Your task to perform on an android device: Play the latest video from the Wall Street Journal Image 0: 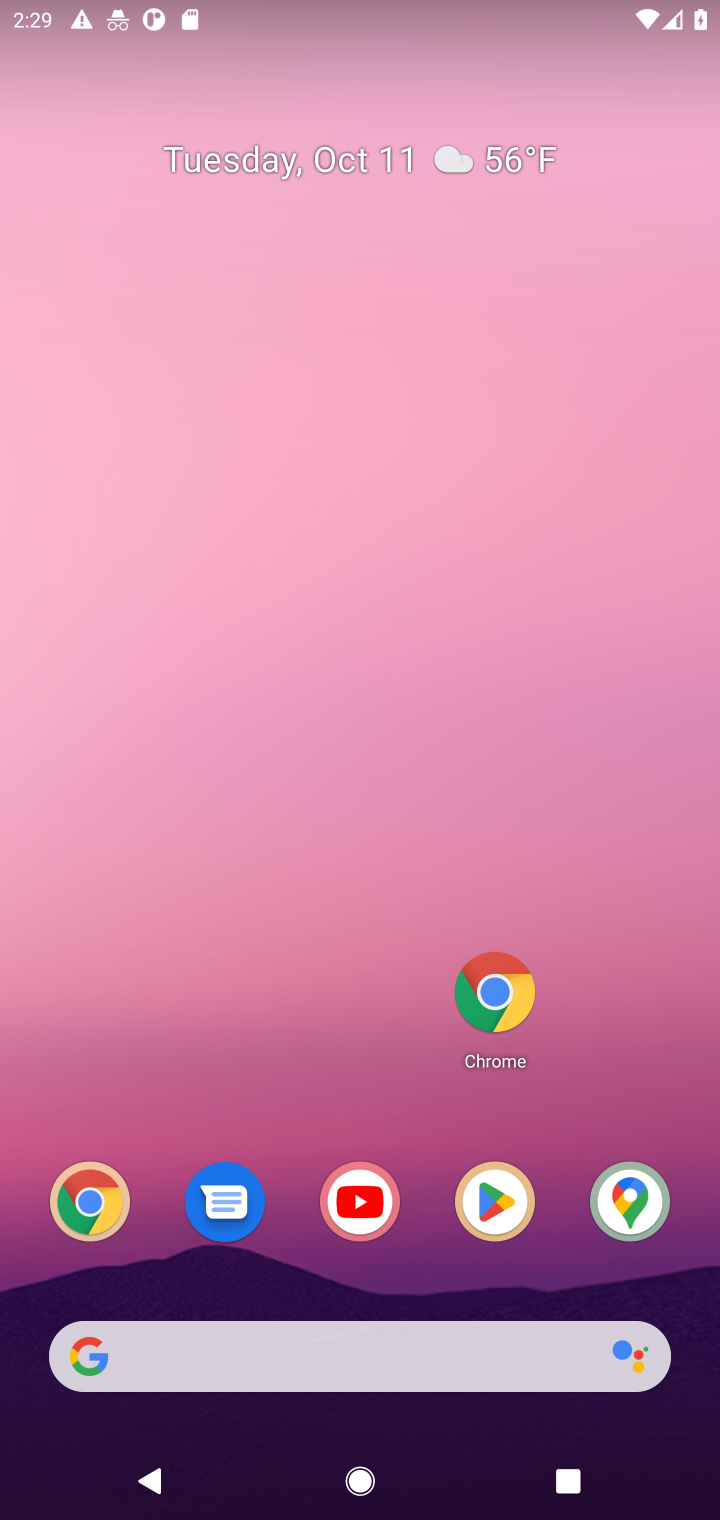
Step 0: click (494, 972)
Your task to perform on an android device: Play the latest video from the Wall Street Journal Image 1: 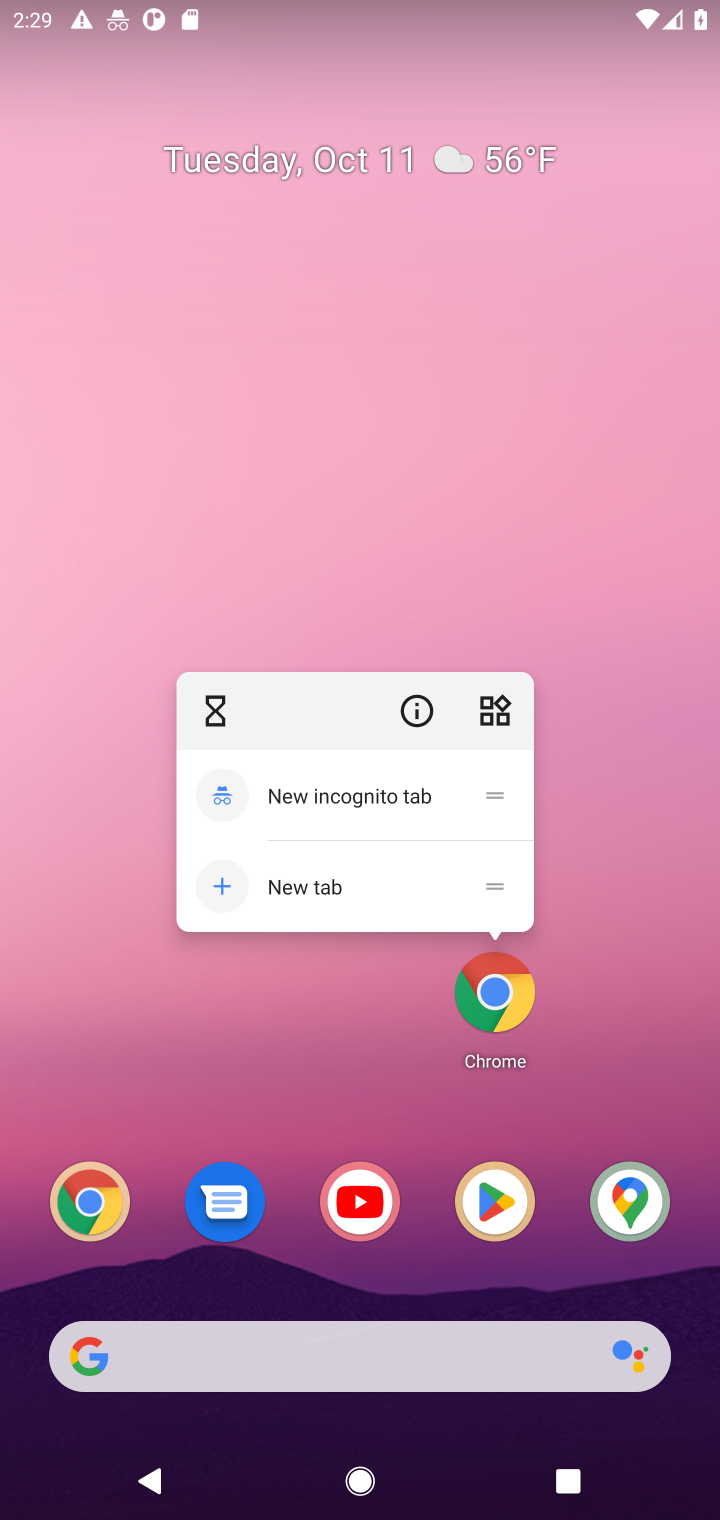
Step 1: click (494, 975)
Your task to perform on an android device: Play the latest video from the Wall Street Journal Image 2: 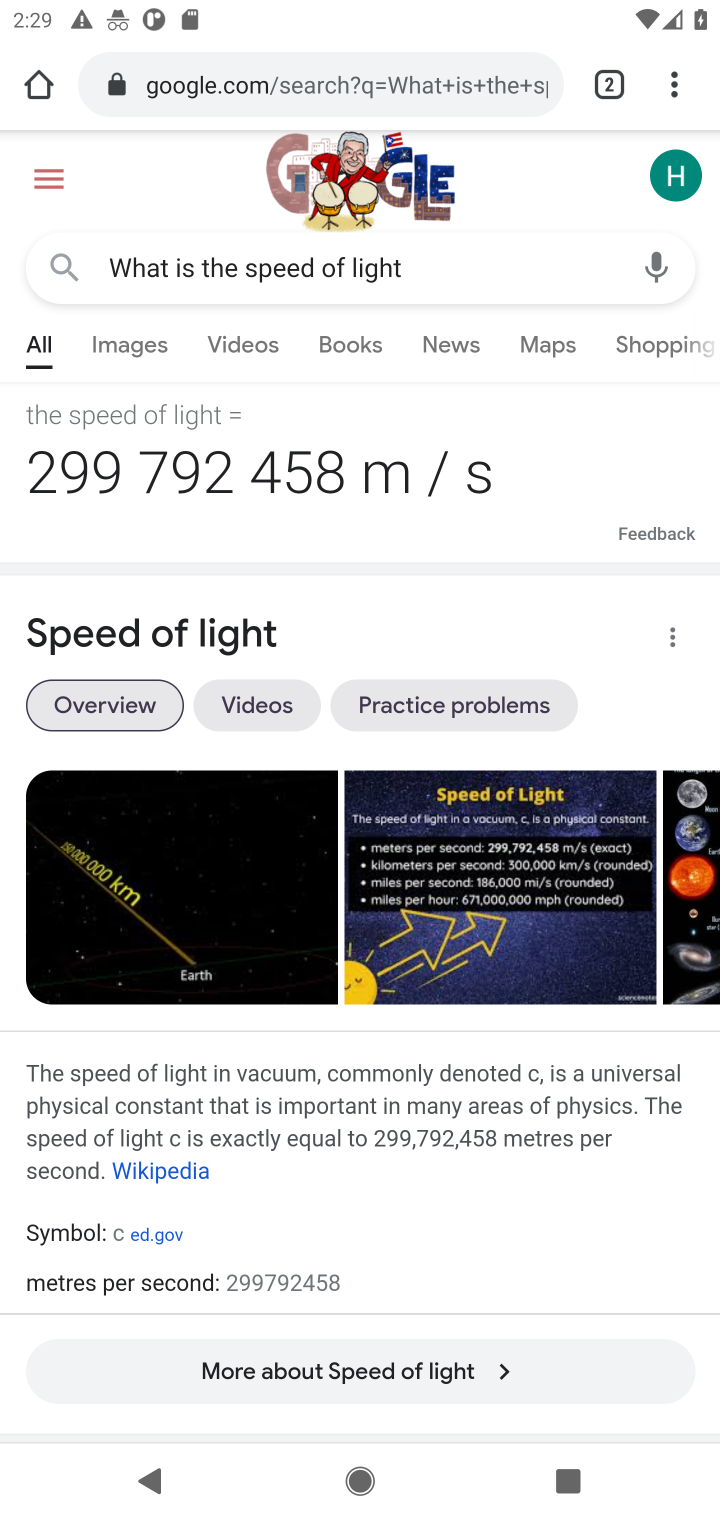
Step 2: click (492, 88)
Your task to perform on an android device: Play the latest video from the Wall Street Journal Image 3: 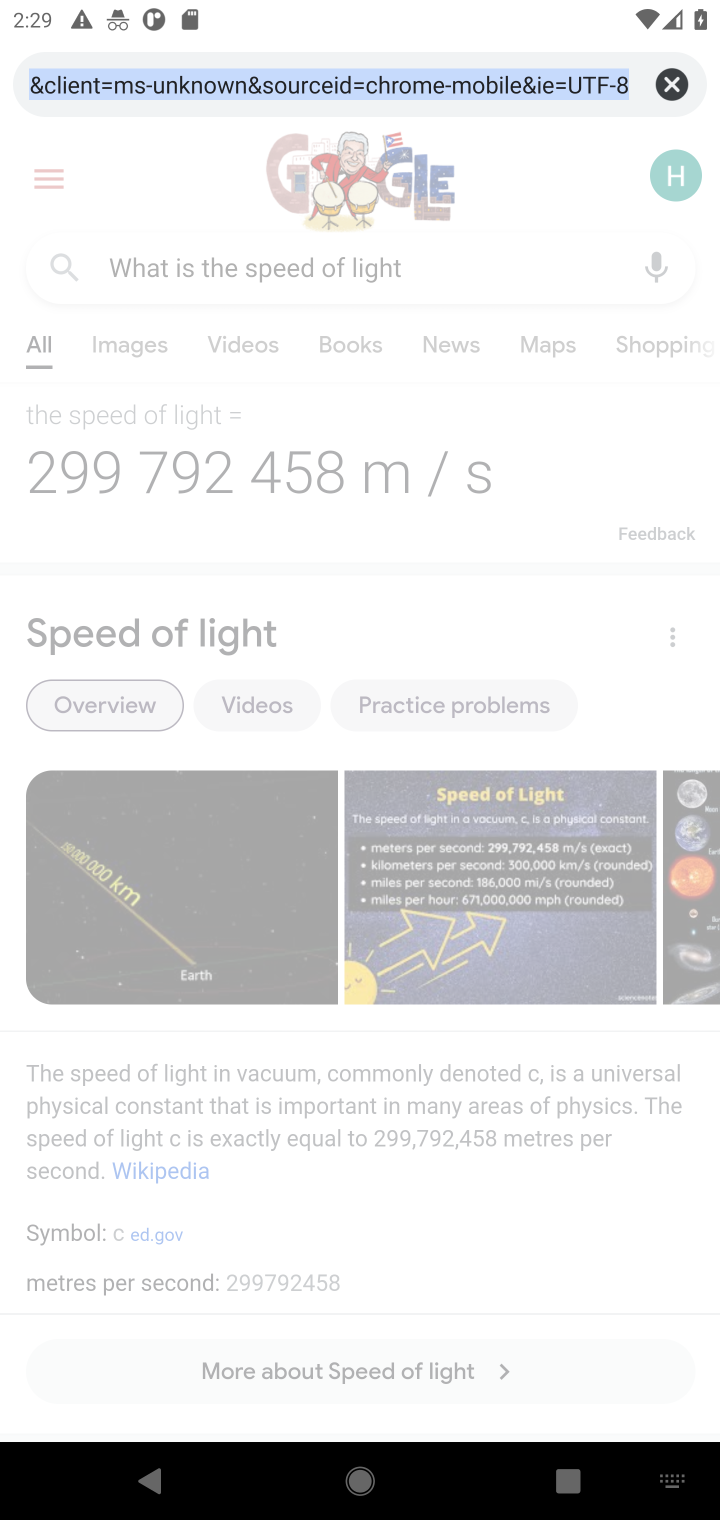
Step 3: click (674, 80)
Your task to perform on an android device: Play the latest video from the Wall Street Journal Image 4: 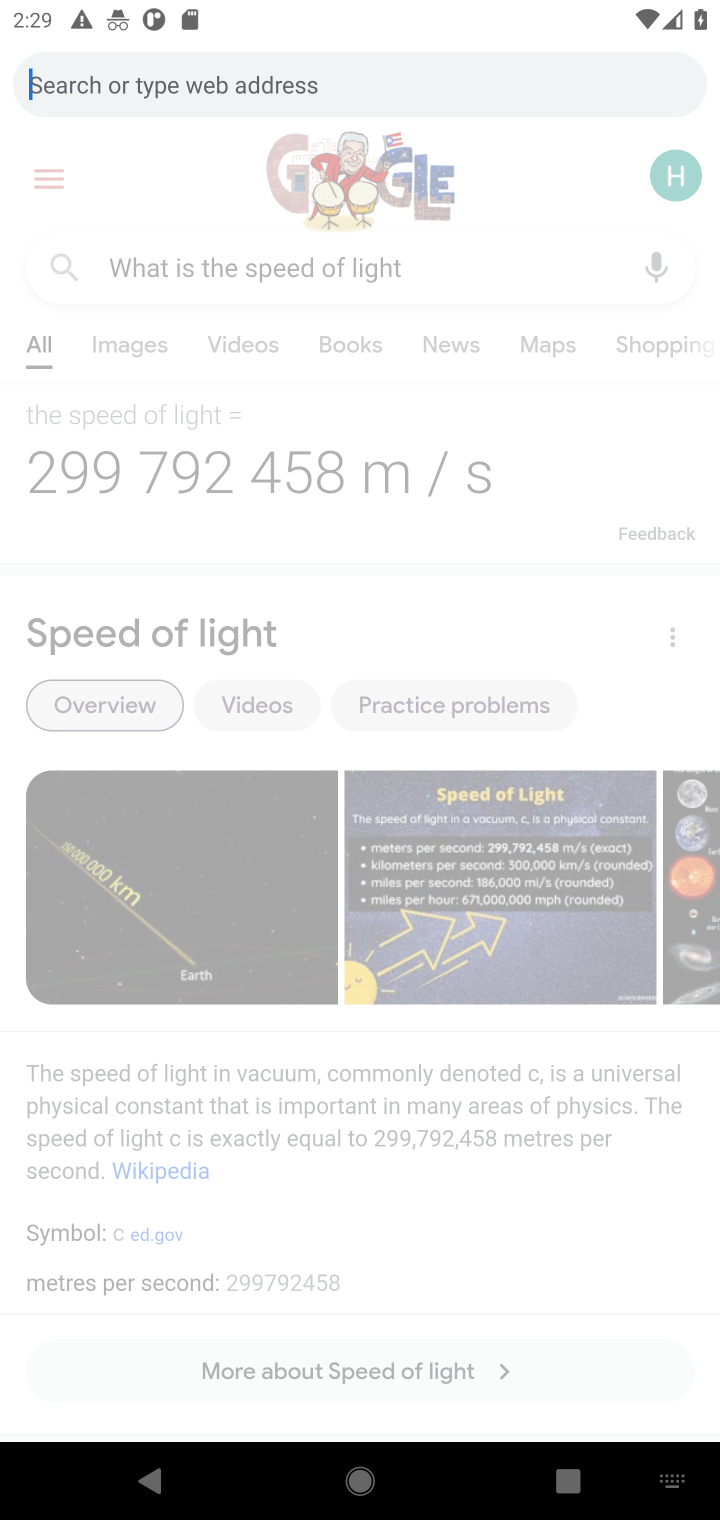
Step 4: type "Play the latest video from the Wall Street Journal"
Your task to perform on an android device: Play the latest video from the Wall Street Journal Image 5: 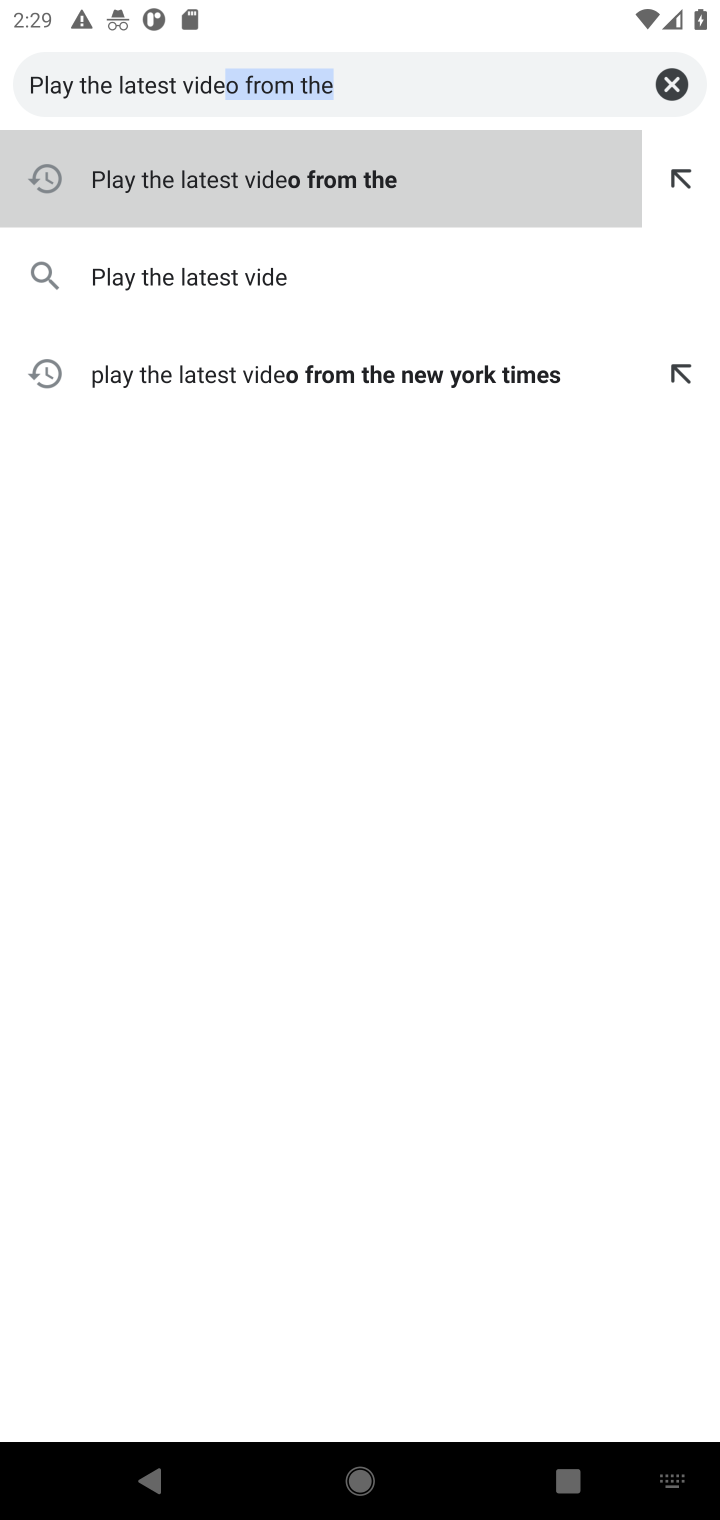
Step 5: press enter
Your task to perform on an android device: Play the latest video from the Wall Street Journal Image 6: 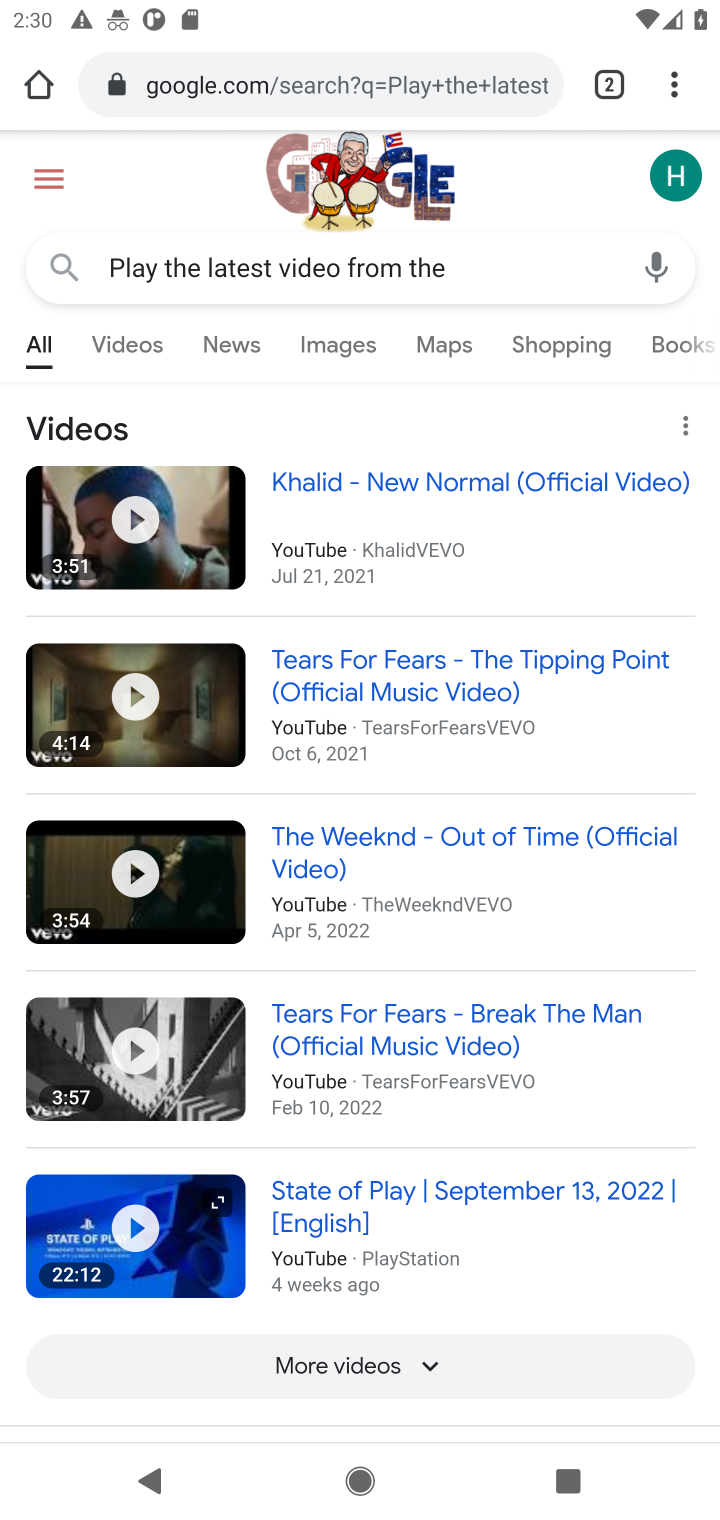
Step 6: click (131, 1235)
Your task to perform on an android device: Play the latest video from the Wall Street Journal Image 7: 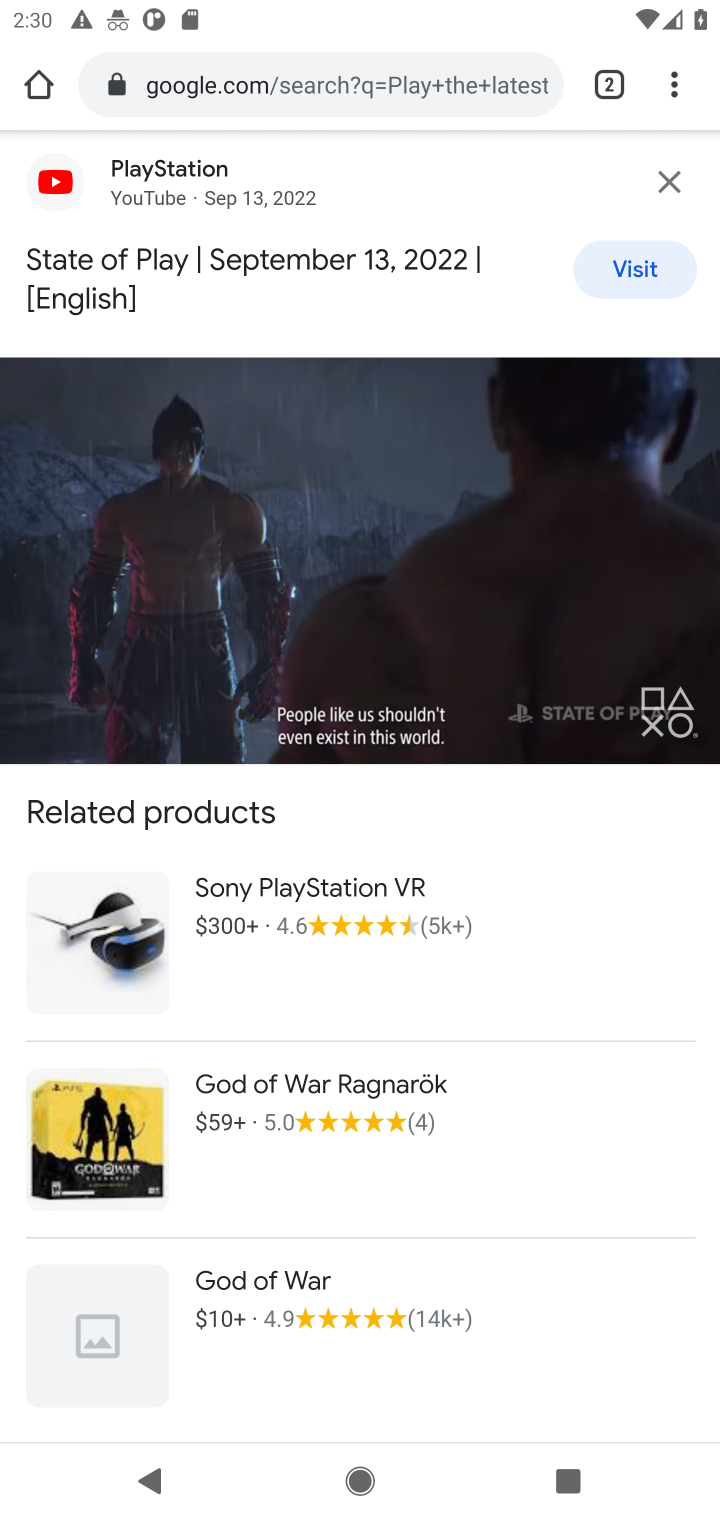
Step 7: click (360, 443)
Your task to perform on an android device: Play the latest video from the Wall Street Journal Image 8: 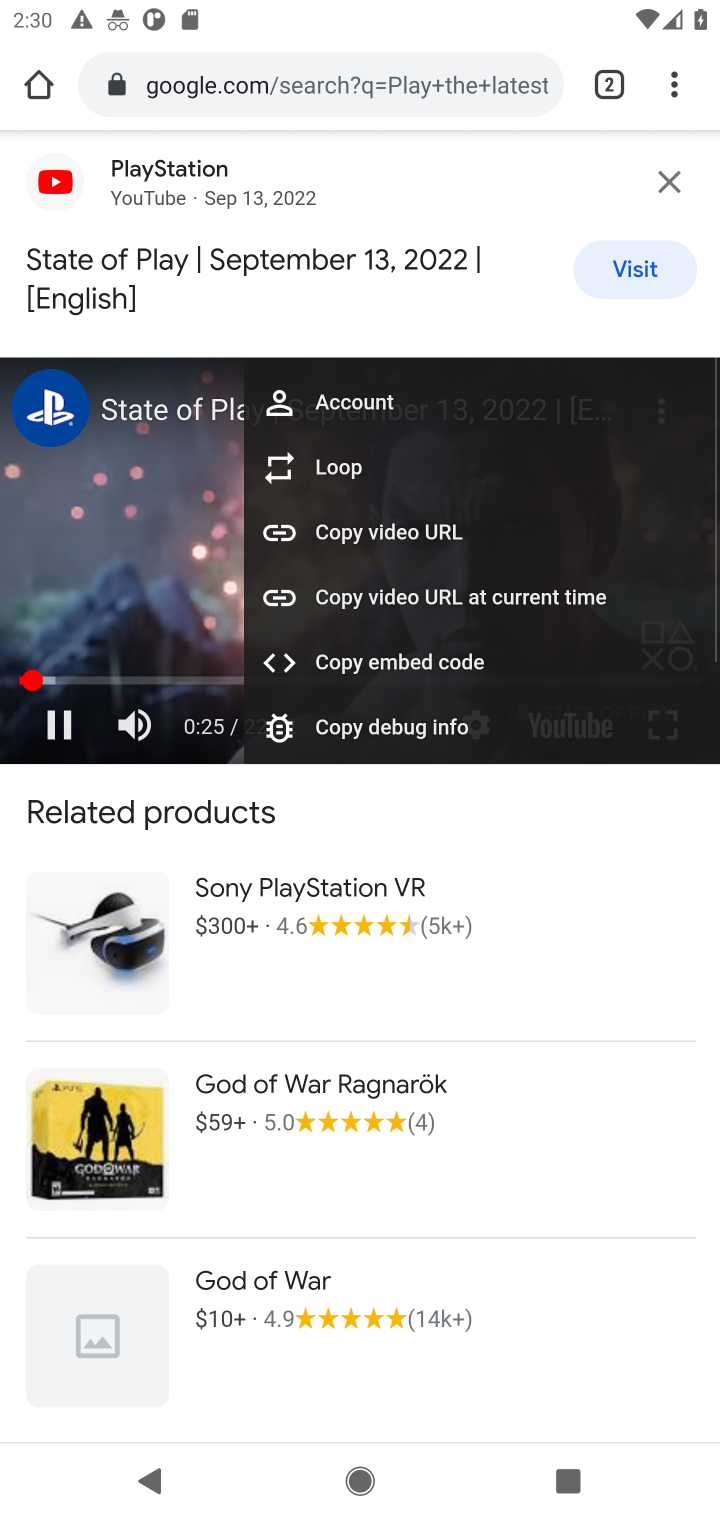
Step 8: click (348, 547)
Your task to perform on an android device: Play the latest video from the Wall Street Journal Image 9: 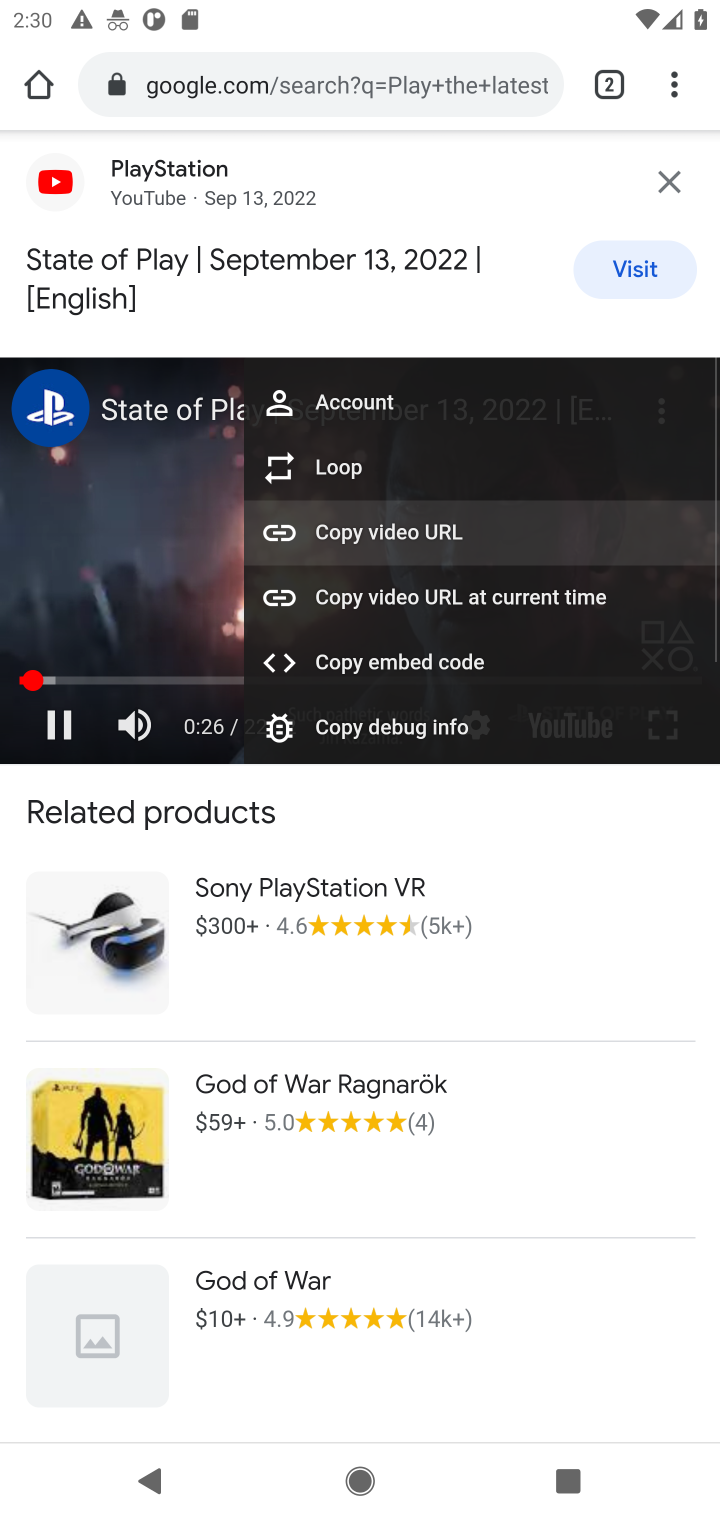
Step 9: click (126, 561)
Your task to perform on an android device: Play the latest video from the Wall Street Journal Image 10: 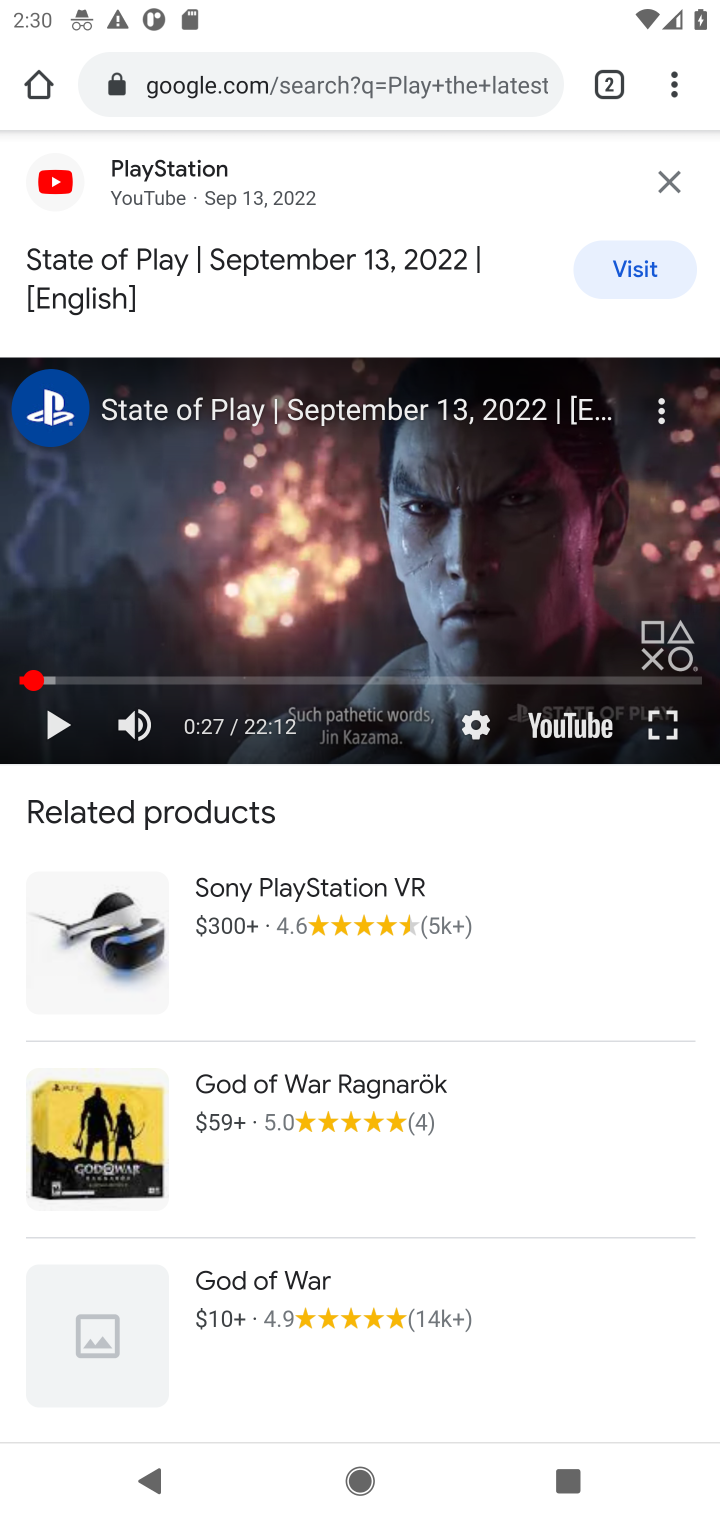
Step 10: click (356, 547)
Your task to perform on an android device: Play the latest video from the Wall Street Journal Image 11: 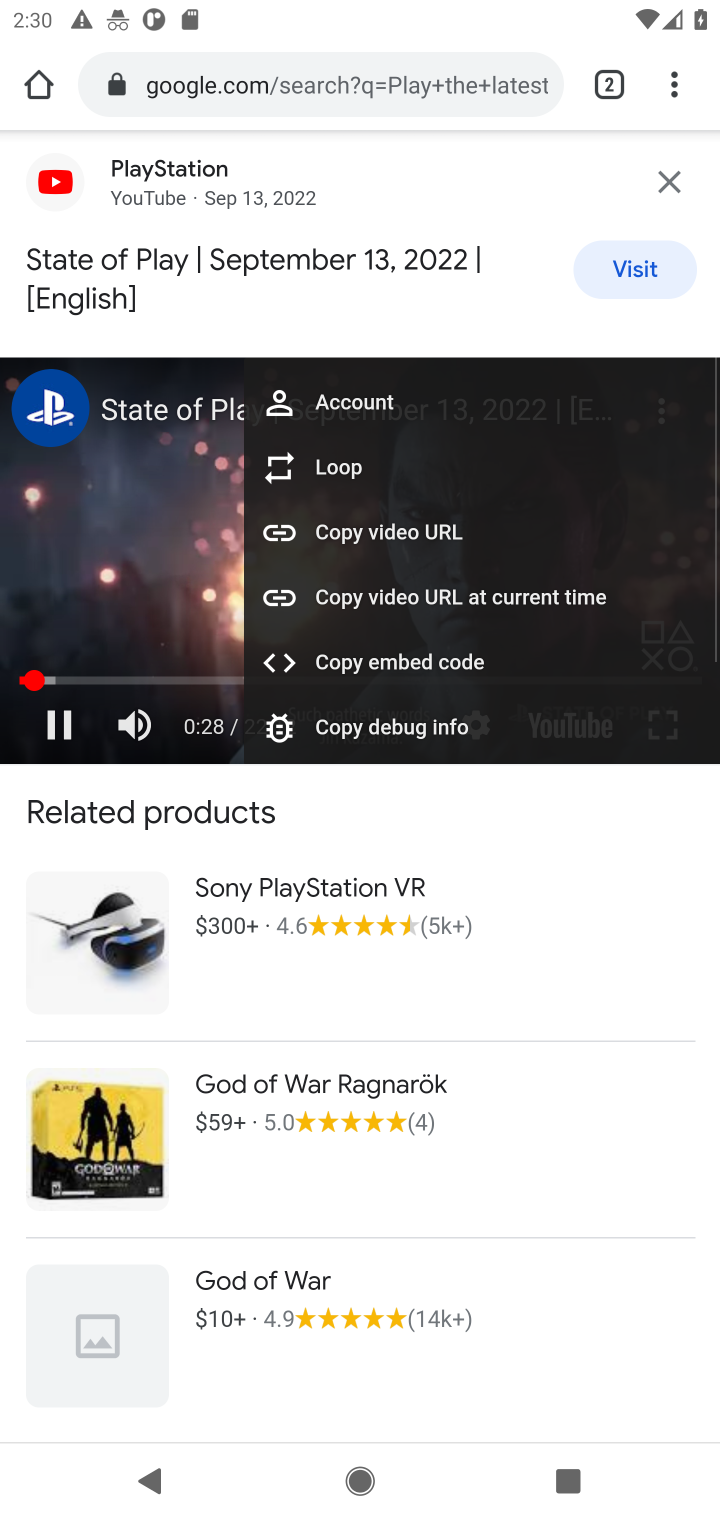
Step 11: click (152, 554)
Your task to perform on an android device: Play the latest video from the Wall Street Journal Image 12: 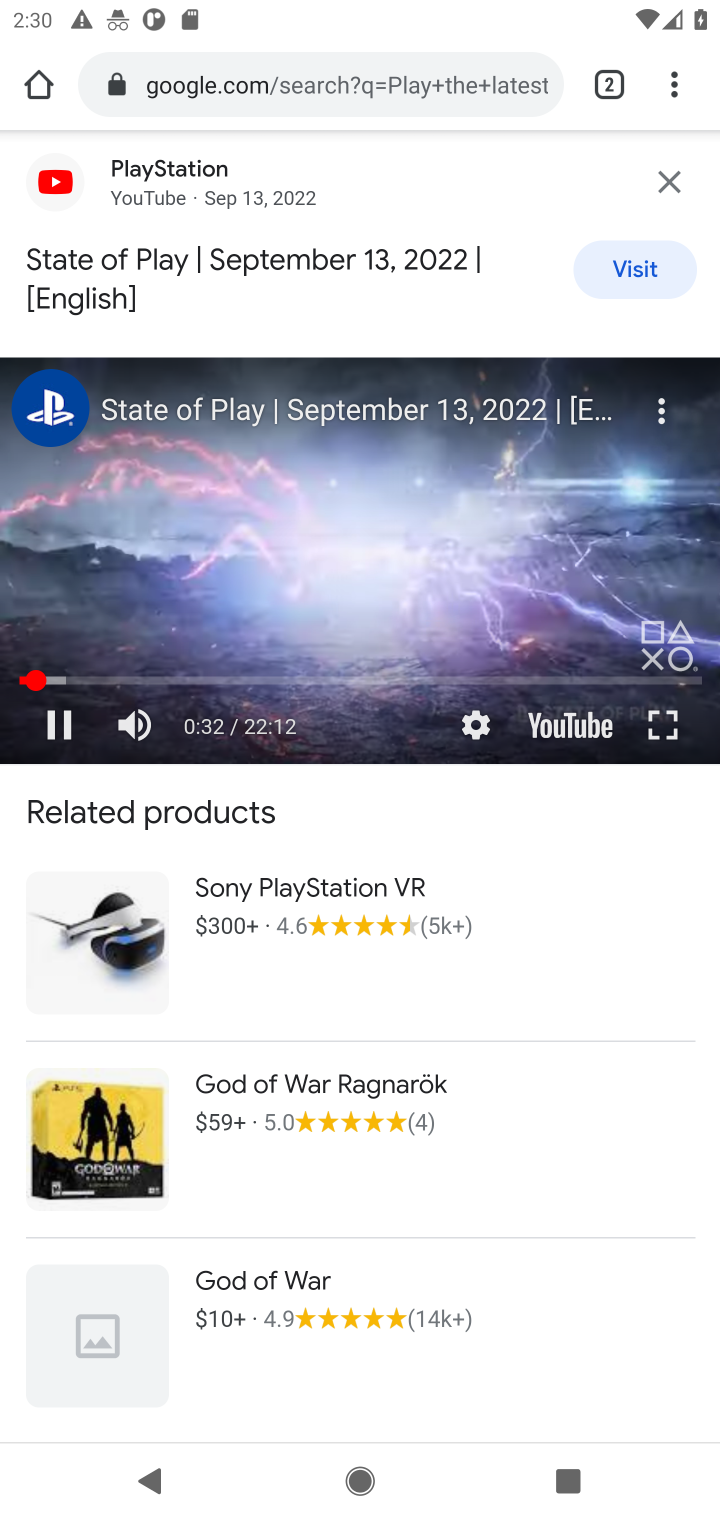
Step 12: click (336, 560)
Your task to perform on an android device: Play the latest video from the Wall Street Journal Image 13: 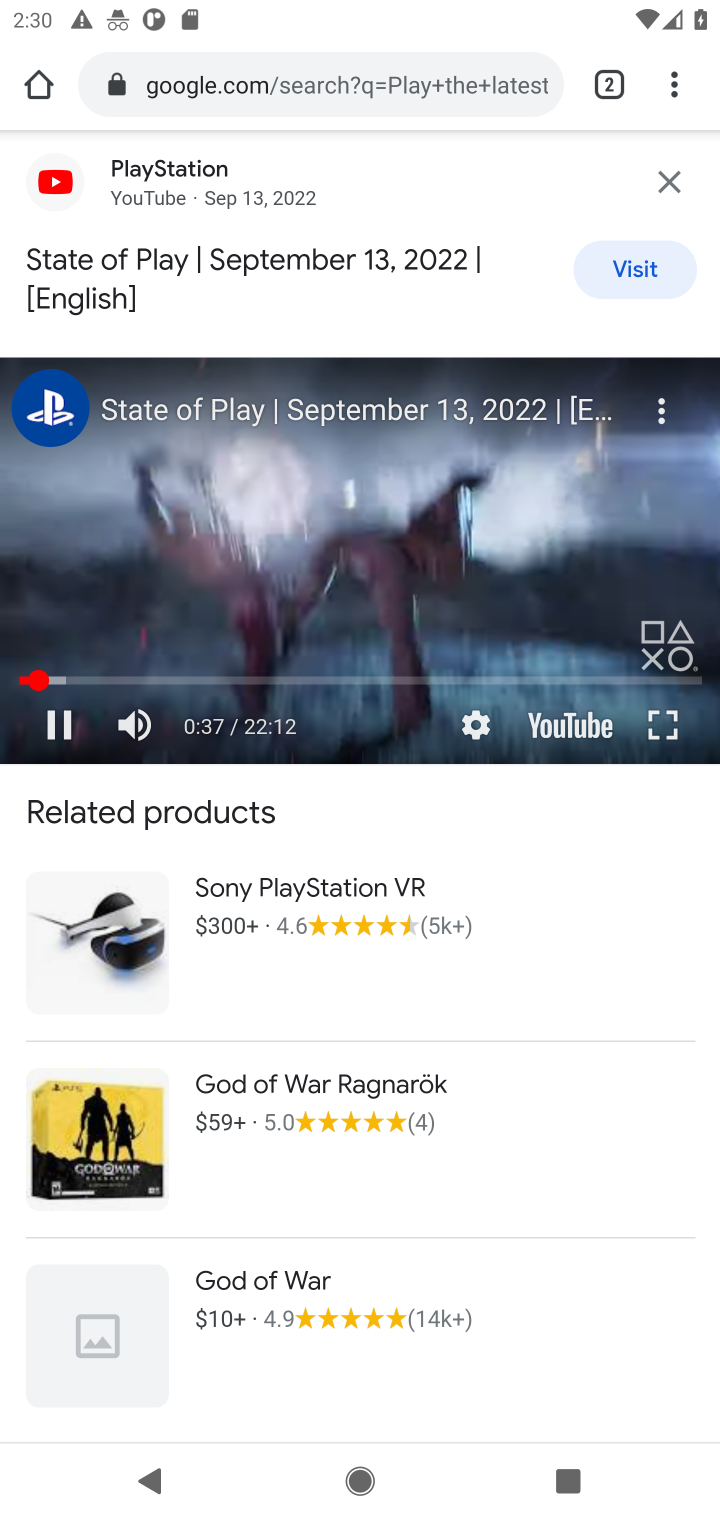
Step 13: click (59, 726)
Your task to perform on an android device: Play the latest video from the Wall Street Journal Image 14: 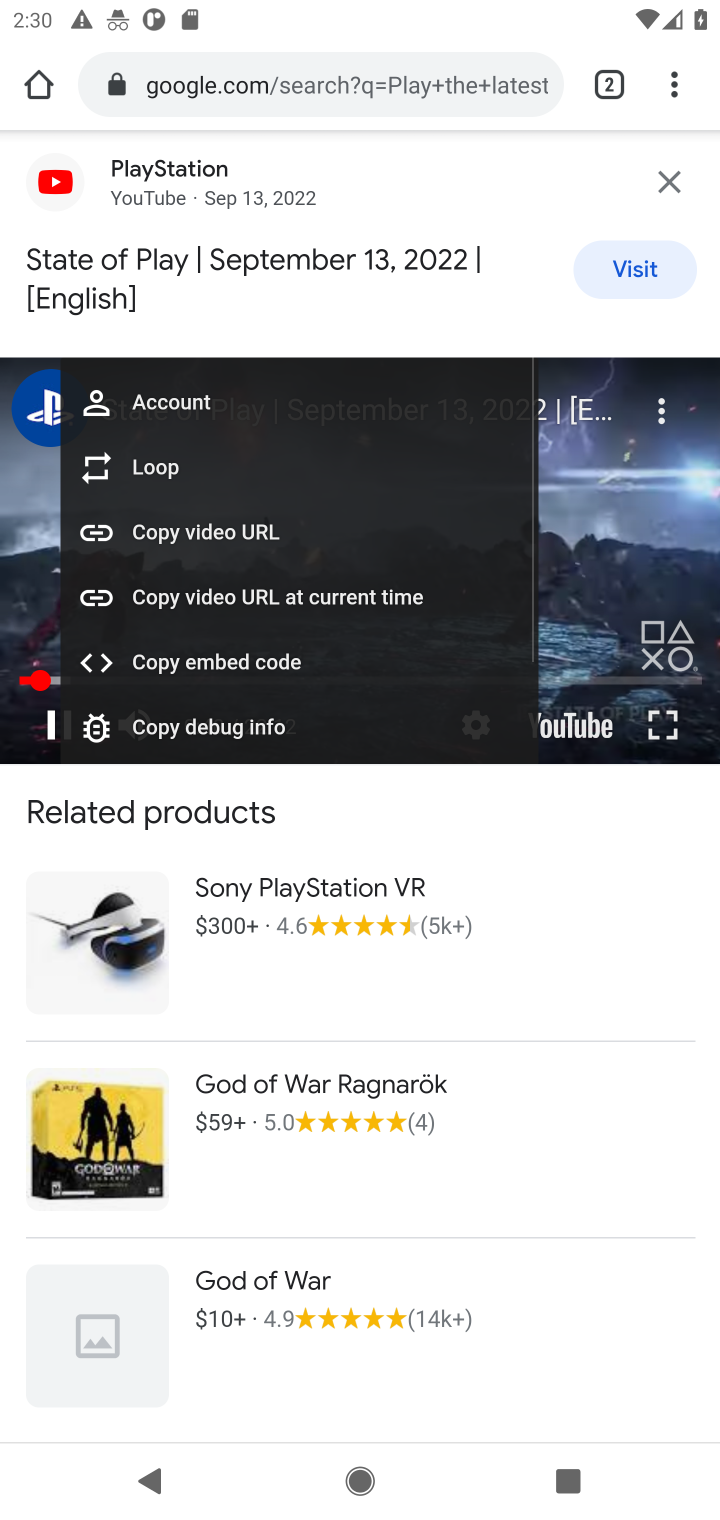
Step 14: click (572, 576)
Your task to perform on an android device: Play the latest video from the Wall Street Journal Image 15: 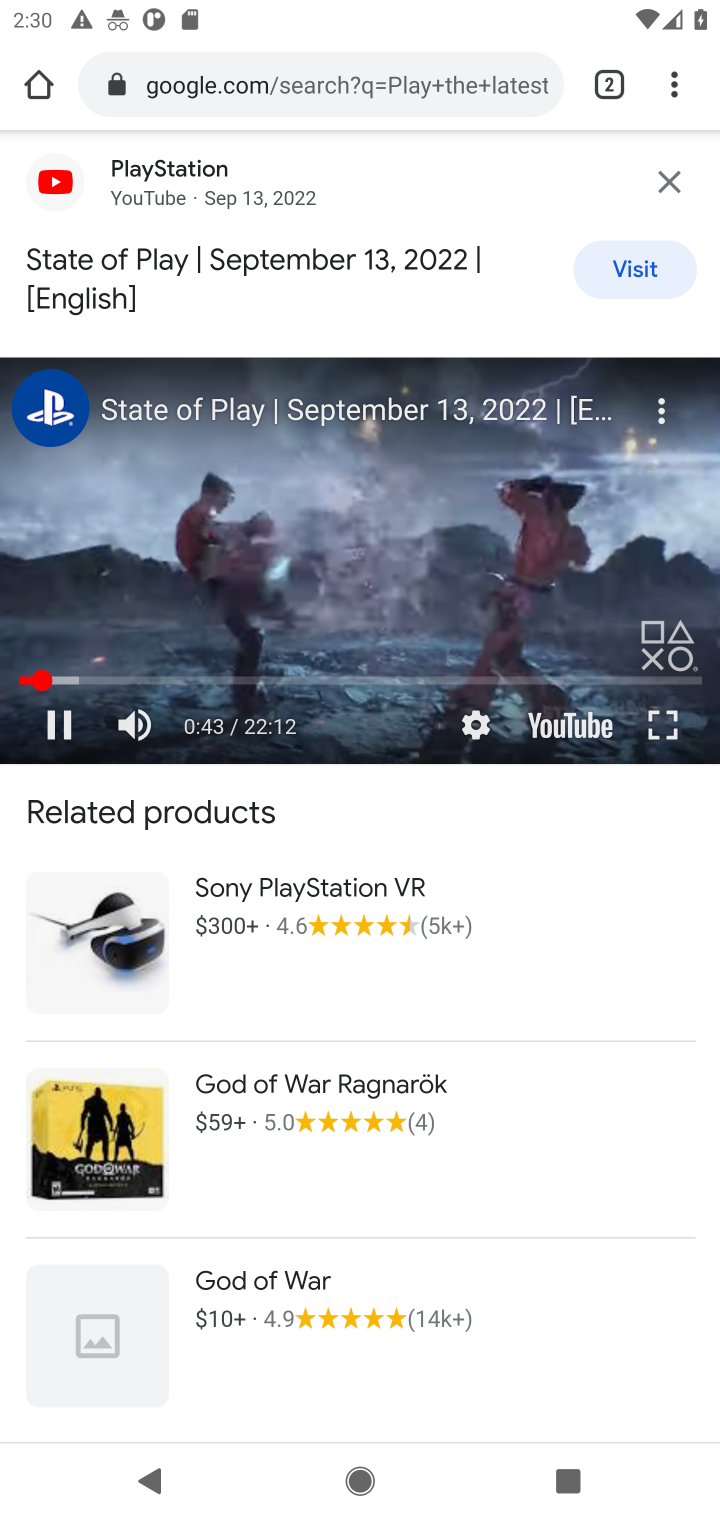
Step 15: click (421, 532)
Your task to perform on an android device: Play the latest video from the Wall Street Journal Image 16: 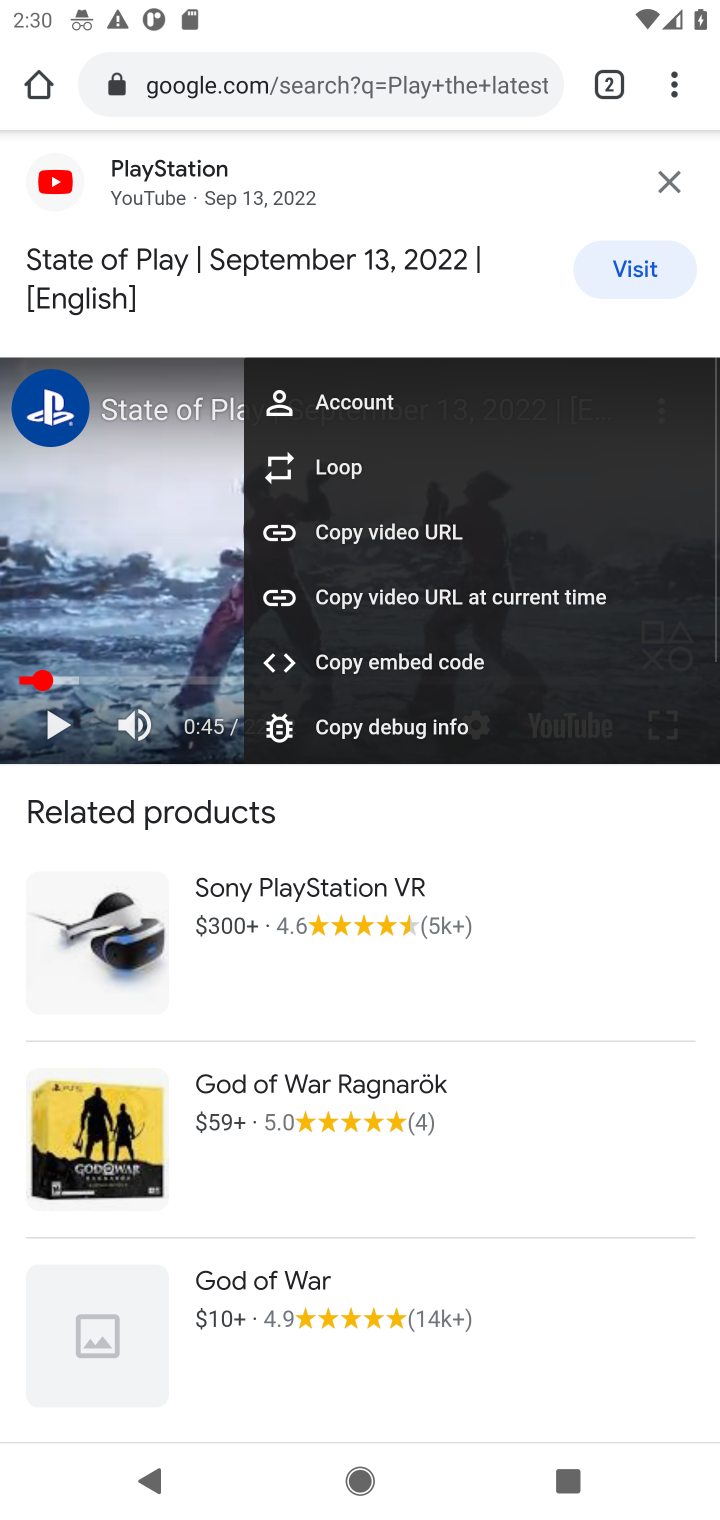
Step 16: task complete